Your task to perform on an android device: Add dell xps to the cart on bestbuy, then select checkout. Image 0: 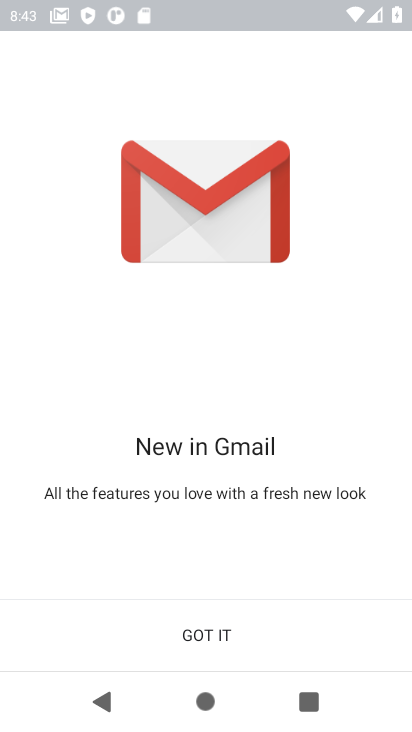
Step 0: press home button
Your task to perform on an android device: Add dell xps to the cart on bestbuy, then select checkout. Image 1: 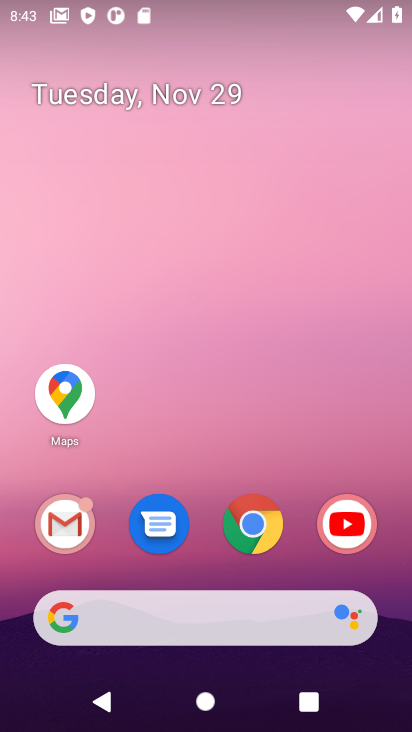
Step 1: click (243, 533)
Your task to perform on an android device: Add dell xps to the cart on bestbuy, then select checkout. Image 2: 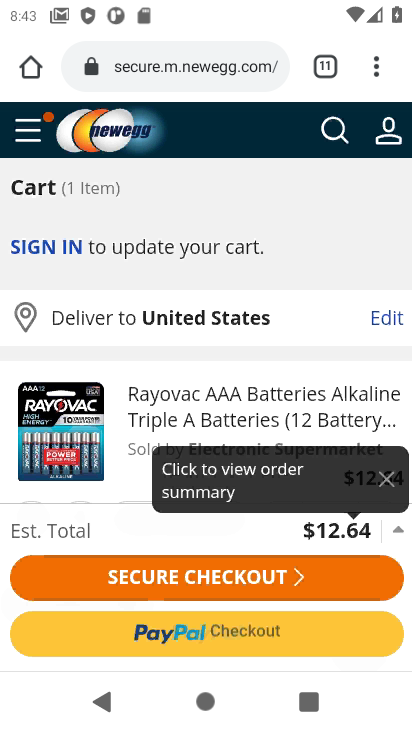
Step 2: click (180, 68)
Your task to perform on an android device: Add dell xps to the cart on bestbuy, then select checkout. Image 3: 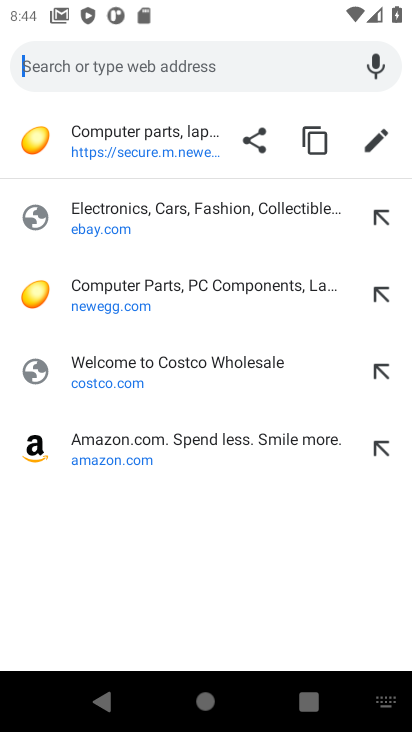
Step 3: type "bestbuy.com"
Your task to perform on an android device: Add dell xps to the cart on bestbuy, then select checkout. Image 4: 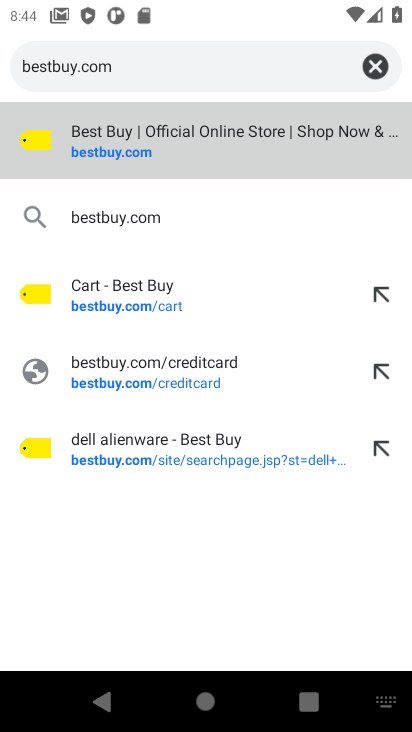
Step 4: click (93, 156)
Your task to perform on an android device: Add dell xps to the cart on bestbuy, then select checkout. Image 5: 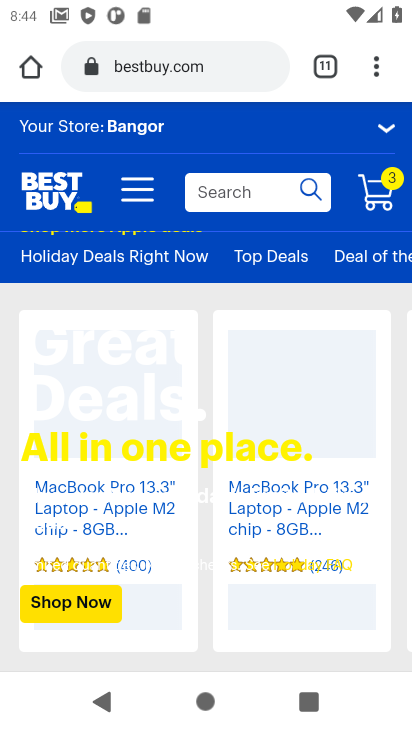
Step 5: click (221, 191)
Your task to perform on an android device: Add dell xps to the cart on bestbuy, then select checkout. Image 6: 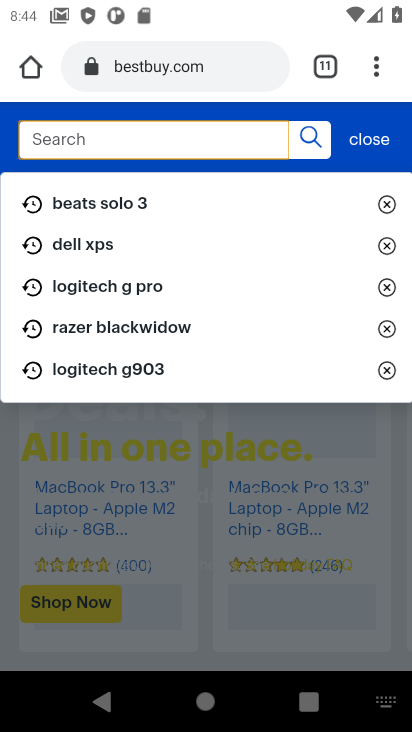
Step 6: type "dell xps"
Your task to perform on an android device: Add dell xps to the cart on bestbuy, then select checkout. Image 7: 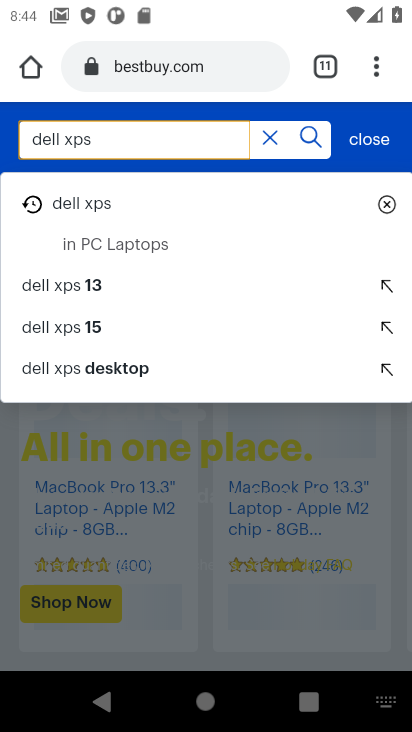
Step 7: click (78, 204)
Your task to perform on an android device: Add dell xps to the cart on bestbuy, then select checkout. Image 8: 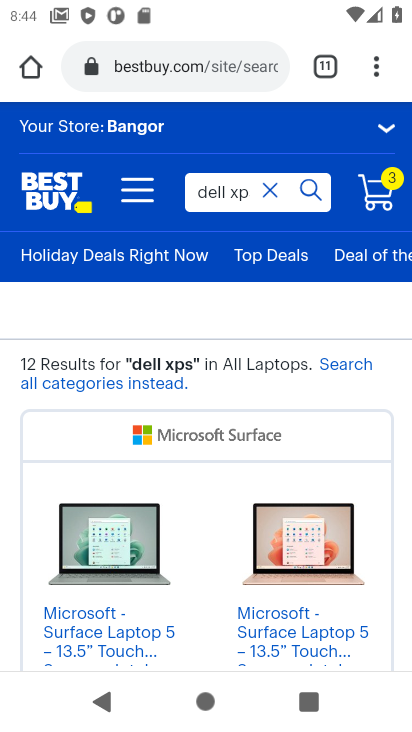
Step 8: drag from (208, 447) to (186, 184)
Your task to perform on an android device: Add dell xps to the cart on bestbuy, then select checkout. Image 9: 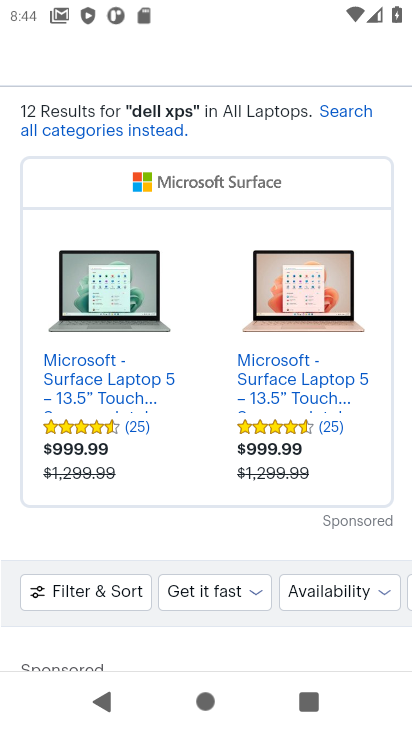
Step 9: drag from (165, 459) to (179, 200)
Your task to perform on an android device: Add dell xps to the cart on bestbuy, then select checkout. Image 10: 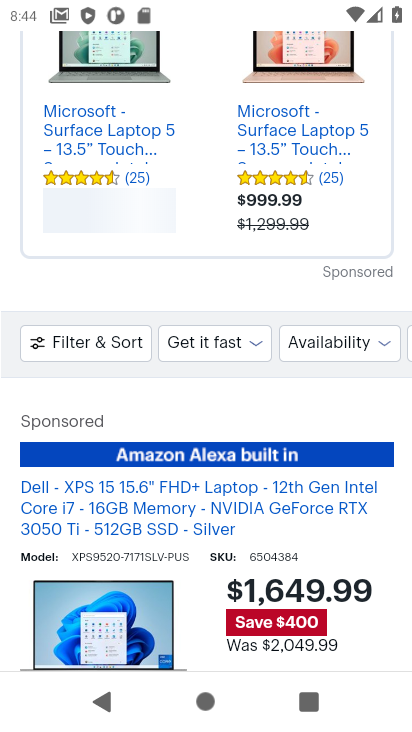
Step 10: drag from (179, 501) to (185, 283)
Your task to perform on an android device: Add dell xps to the cart on bestbuy, then select checkout. Image 11: 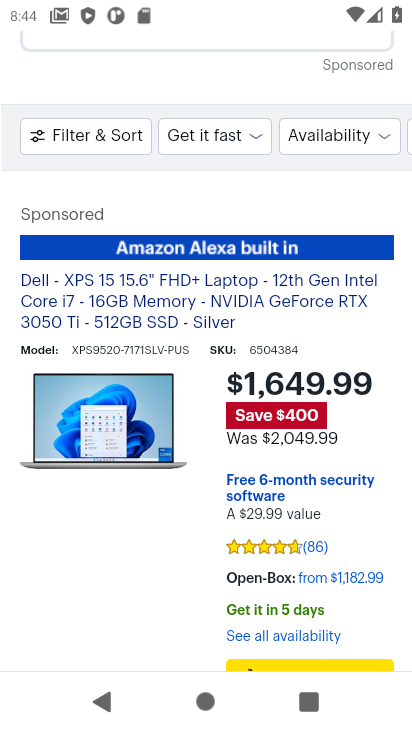
Step 11: drag from (246, 527) to (247, 352)
Your task to perform on an android device: Add dell xps to the cart on bestbuy, then select checkout. Image 12: 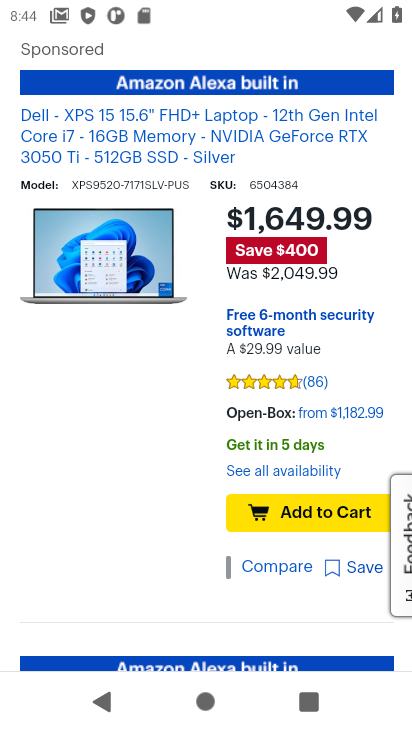
Step 12: click (281, 512)
Your task to perform on an android device: Add dell xps to the cart on bestbuy, then select checkout. Image 13: 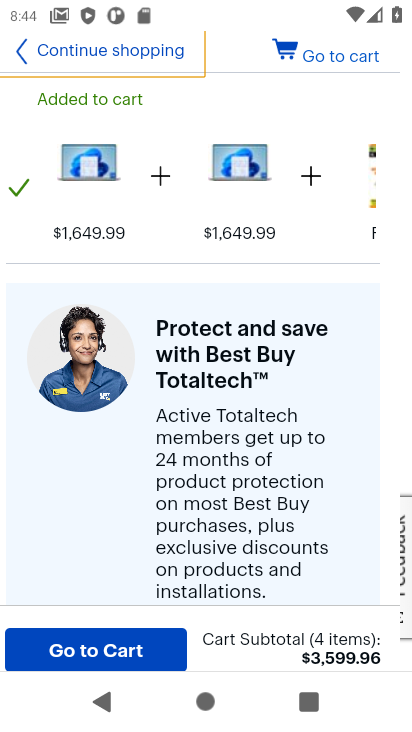
Step 13: click (329, 62)
Your task to perform on an android device: Add dell xps to the cart on bestbuy, then select checkout. Image 14: 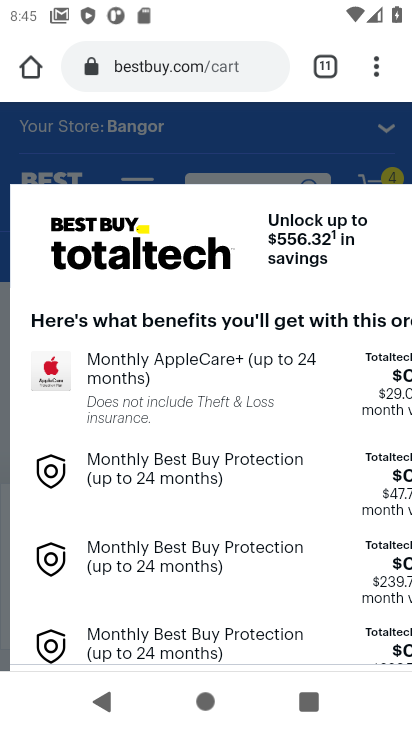
Step 14: click (326, 153)
Your task to perform on an android device: Add dell xps to the cart on bestbuy, then select checkout. Image 15: 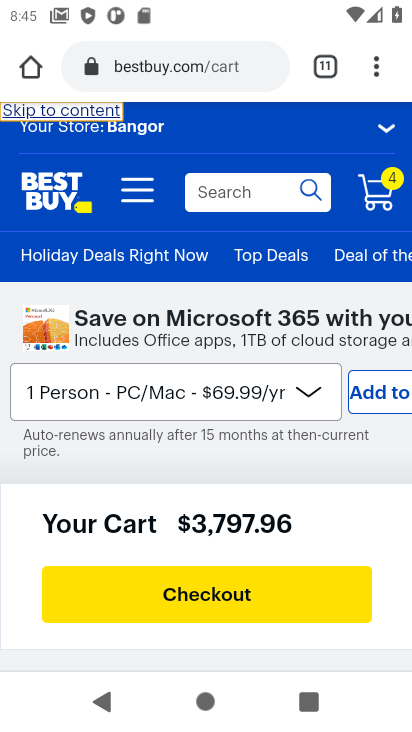
Step 15: click (181, 588)
Your task to perform on an android device: Add dell xps to the cart on bestbuy, then select checkout. Image 16: 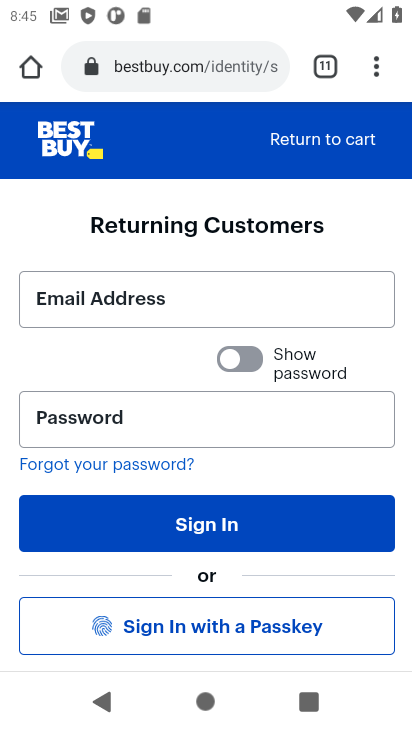
Step 16: task complete